Your task to perform on an android device: Open my contact list Image 0: 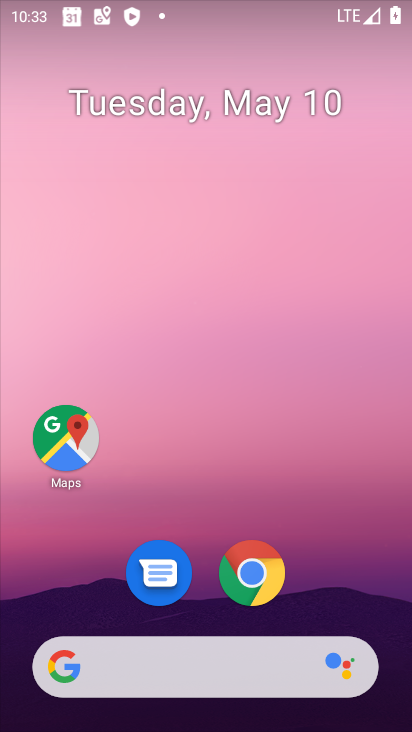
Step 0: drag from (310, 583) to (193, 86)
Your task to perform on an android device: Open my contact list Image 1: 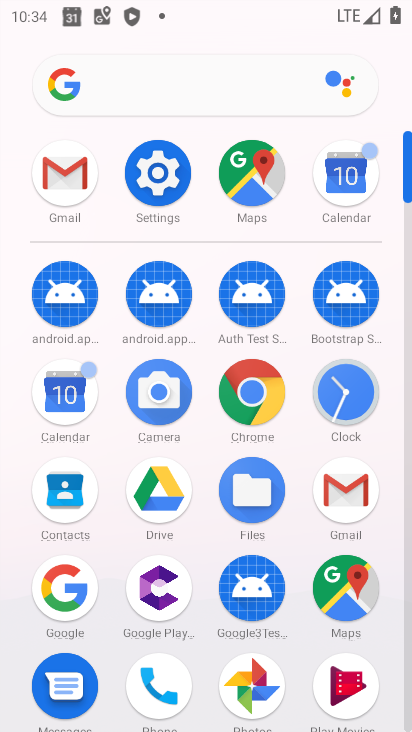
Step 1: click (62, 503)
Your task to perform on an android device: Open my contact list Image 2: 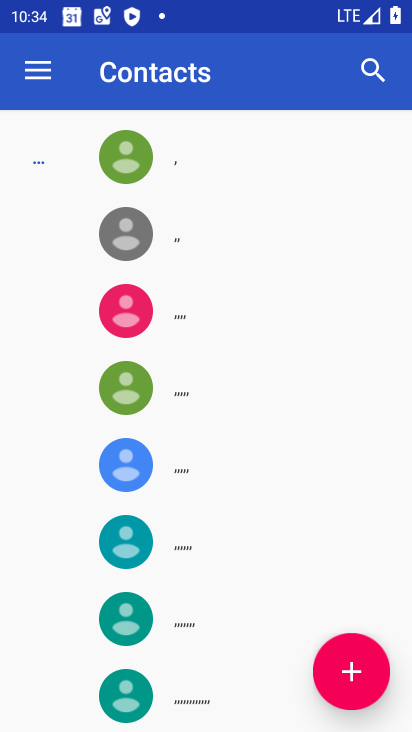
Step 2: task complete